Your task to perform on an android device: turn on showing notifications on the lock screen Image 0: 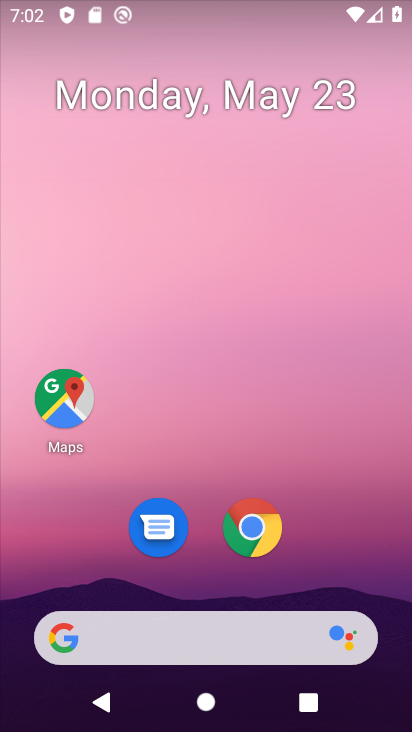
Step 0: drag from (223, 603) to (51, 2)
Your task to perform on an android device: turn on showing notifications on the lock screen Image 1: 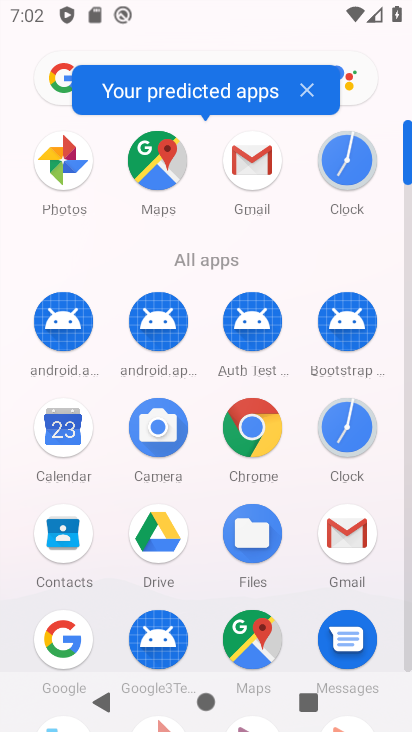
Step 1: drag from (108, 586) to (82, 305)
Your task to perform on an android device: turn on showing notifications on the lock screen Image 2: 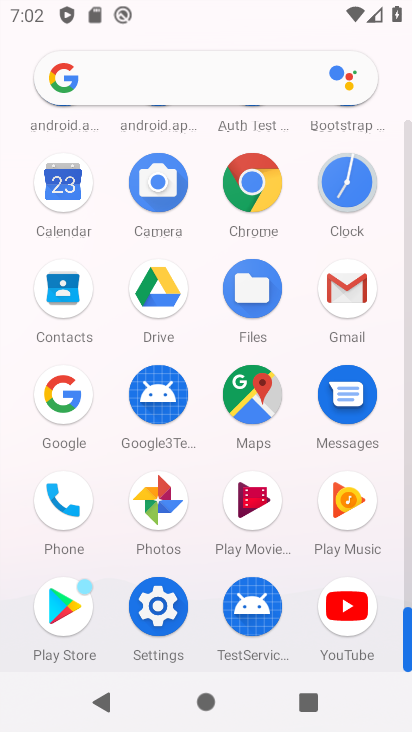
Step 2: click (163, 617)
Your task to perform on an android device: turn on showing notifications on the lock screen Image 3: 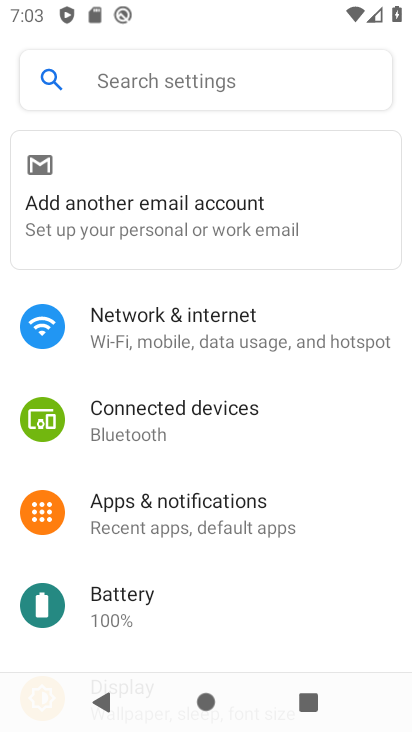
Step 3: click (190, 84)
Your task to perform on an android device: turn on showing notifications on the lock screen Image 4: 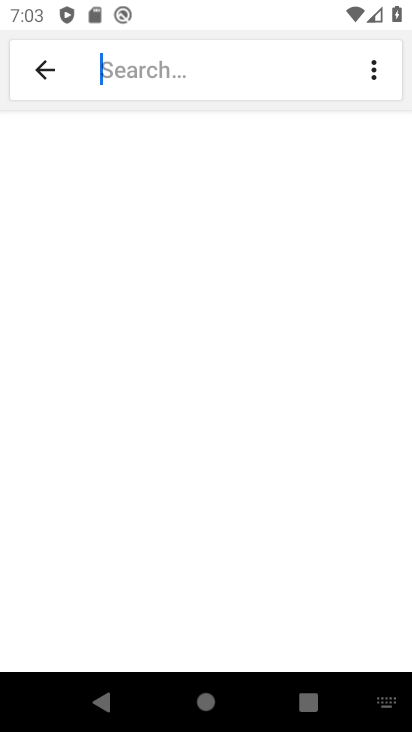
Step 4: click (381, 704)
Your task to perform on an android device: turn on showing notifications on the lock screen Image 5: 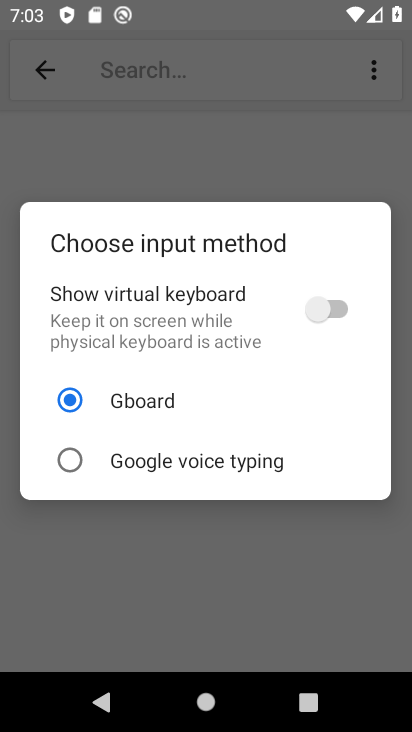
Step 5: click (332, 302)
Your task to perform on an android device: turn on showing notifications on the lock screen Image 6: 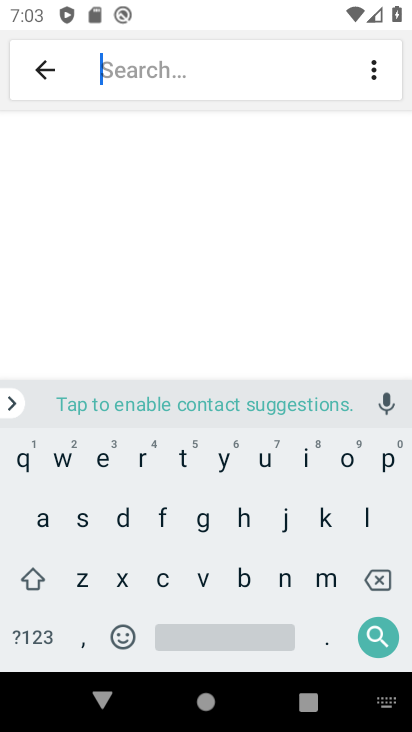
Step 6: click (279, 582)
Your task to perform on an android device: turn on showing notifications on the lock screen Image 7: 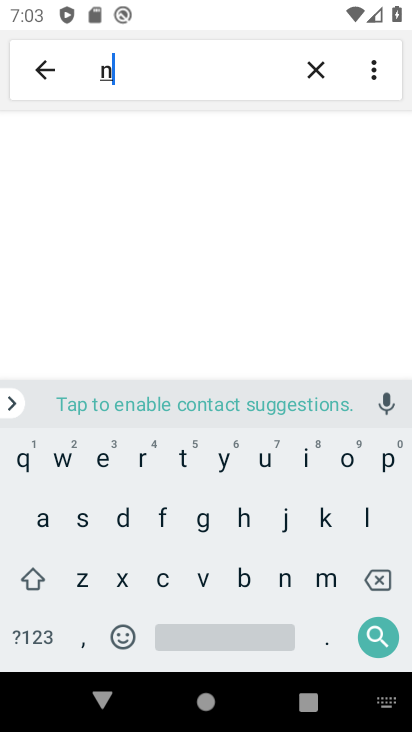
Step 7: click (344, 463)
Your task to perform on an android device: turn on showing notifications on the lock screen Image 8: 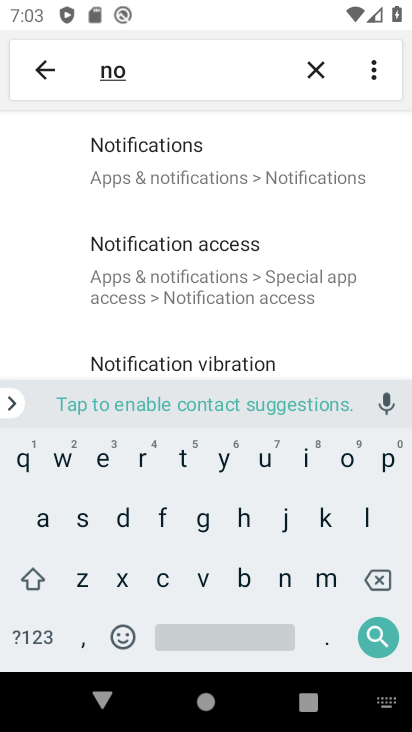
Step 8: click (143, 189)
Your task to perform on an android device: turn on showing notifications on the lock screen Image 9: 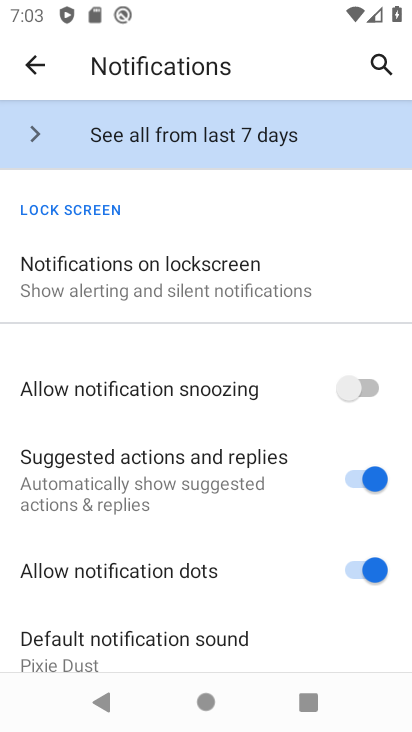
Step 9: click (108, 258)
Your task to perform on an android device: turn on showing notifications on the lock screen Image 10: 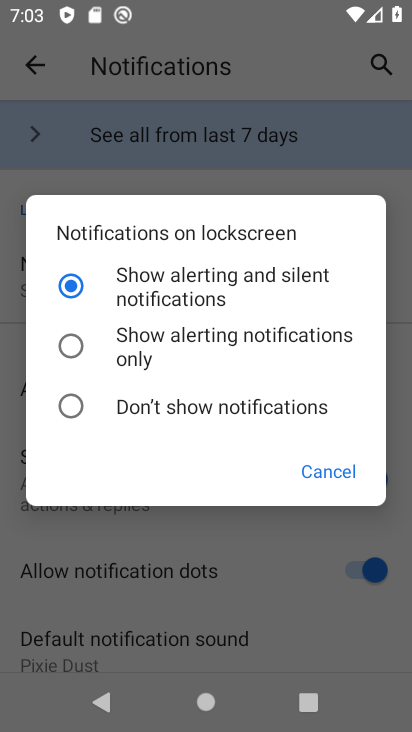
Step 10: click (133, 278)
Your task to perform on an android device: turn on showing notifications on the lock screen Image 11: 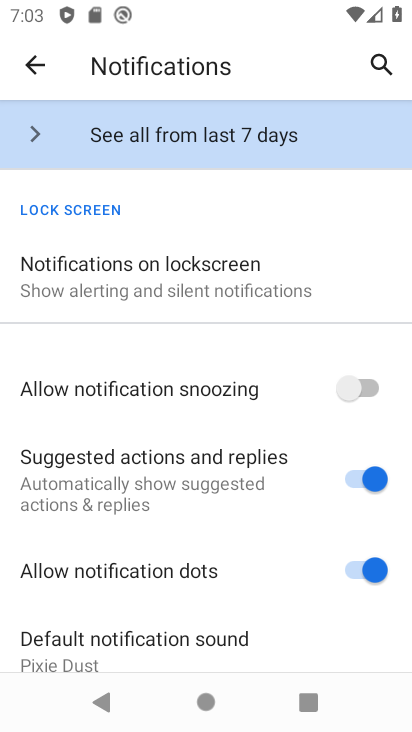
Step 11: task complete